Your task to perform on an android device: Open the map Image 0: 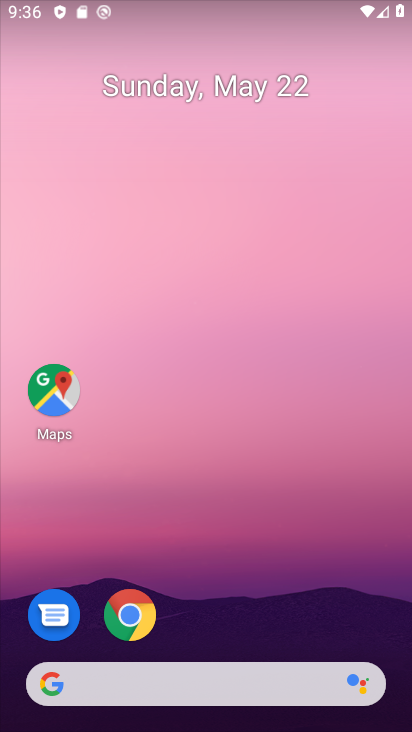
Step 0: click (64, 391)
Your task to perform on an android device: Open the map Image 1: 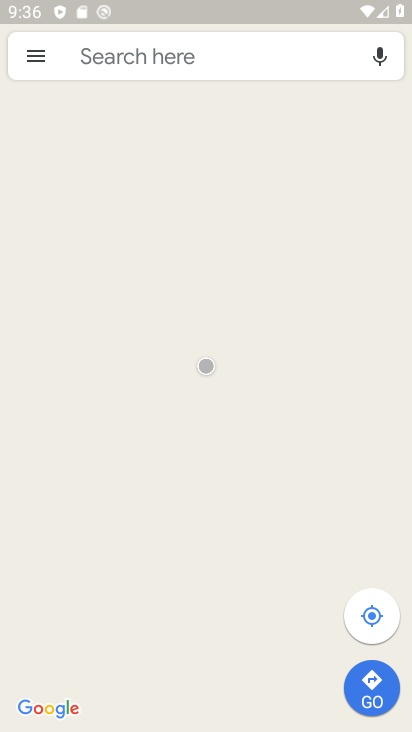
Step 1: task complete